Your task to perform on an android device: change your default location settings in chrome Image 0: 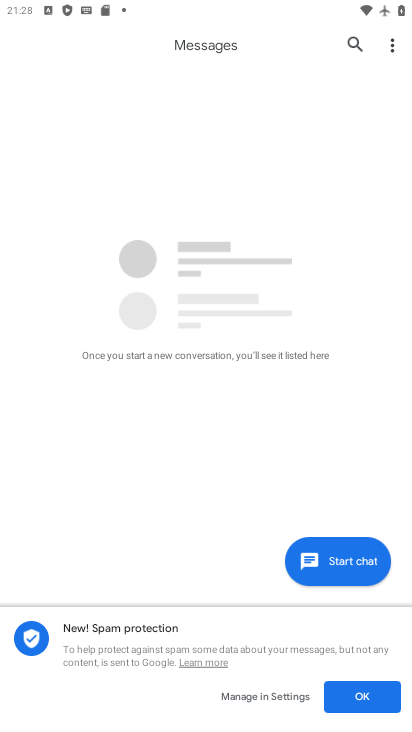
Step 0: press home button
Your task to perform on an android device: change your default location settings in chrome Image 1: 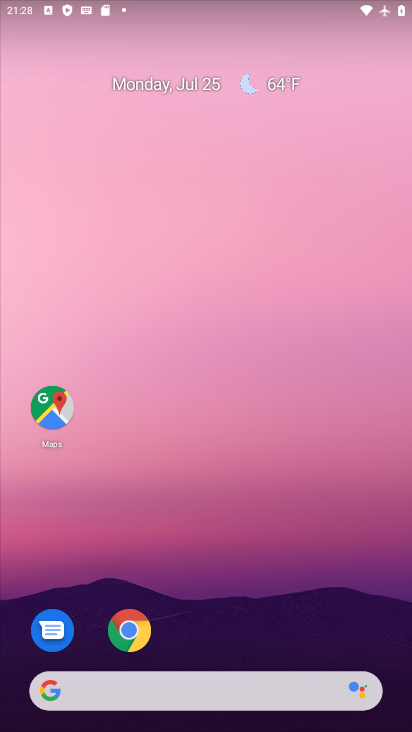
Step 1: click (128, 633)
Your task to perform on an android device: change your default location settings in chrome Image 2: 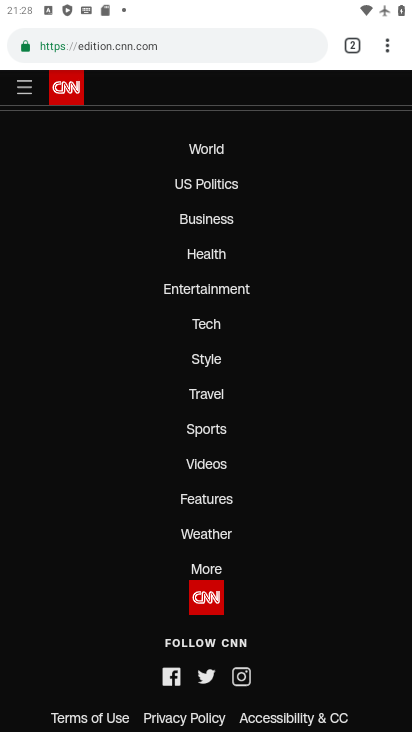
Step 2: click (387, 53)
Your task to perform on an android device: change your default location settings in chrome Image 3: 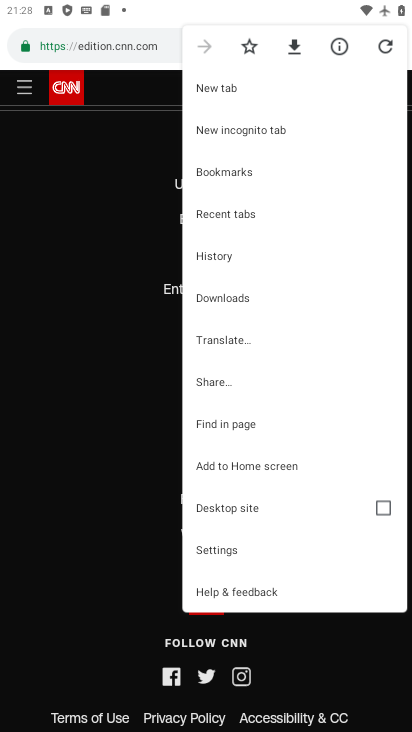
Step 3: click (211, 553)
Your task to perform on an android device: change your default location settings in chrome Image 4: 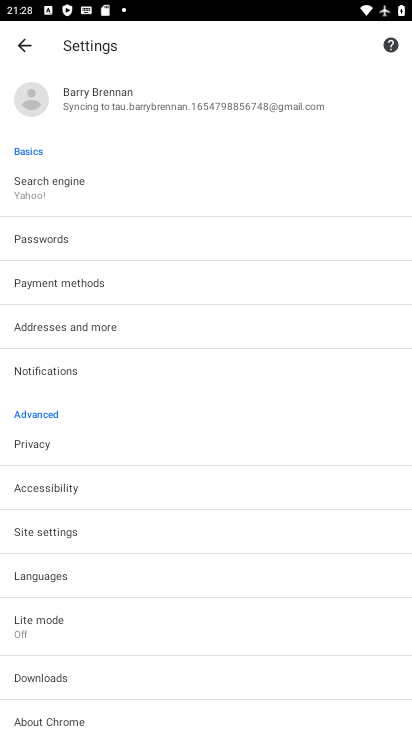
Step 4: click (43, 527)
Your task to perform on an android device: change your default location settings in chrome Image 5: 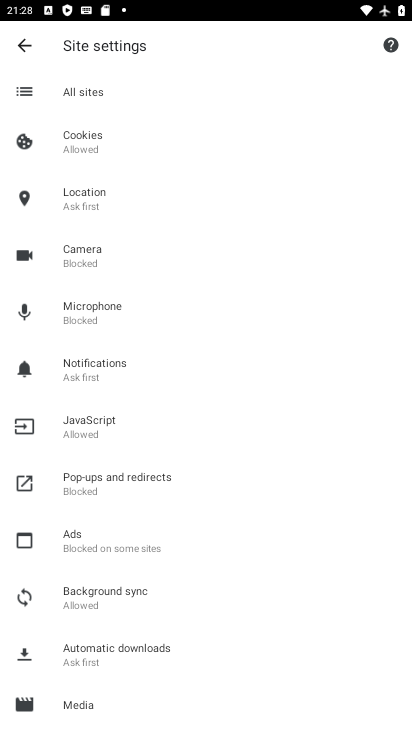
Step 5: click (78, 195)
Your task to perform on an android device: change your default location settings in chrome Image 6: 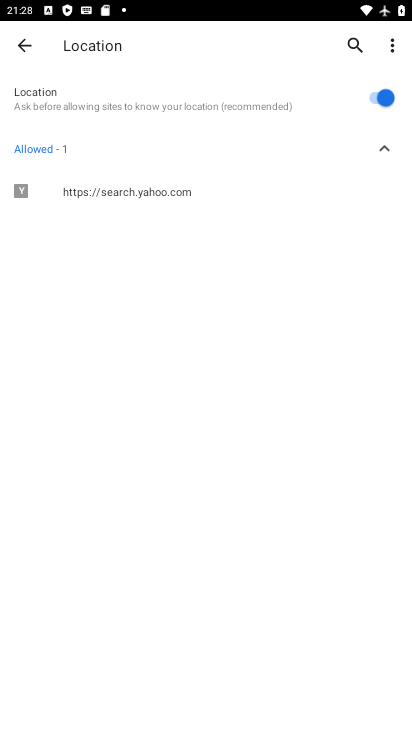
Step 6: click (371, 96)
Your task to perform on an android device: change your default location settings in chrome Image 7: 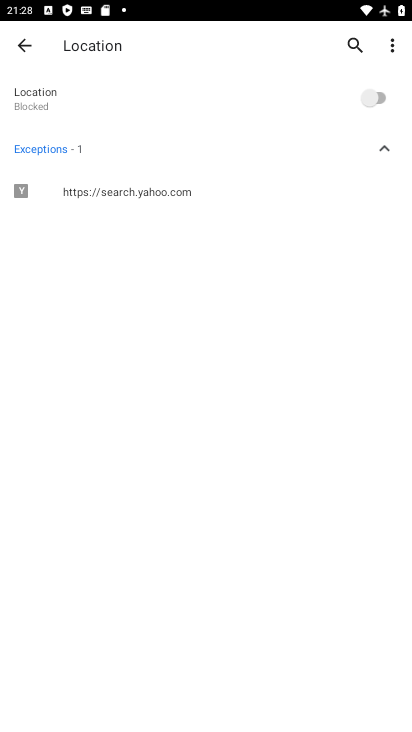
Step 7: task complete